Your task to perform on an android device: Go to display settings Image 0: 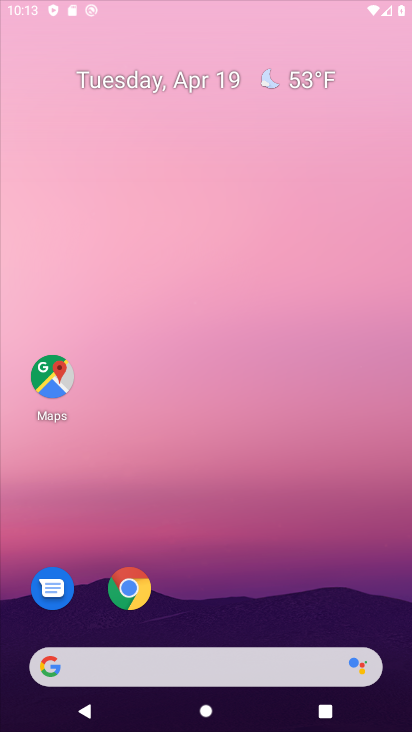
Step 0: click (158, 282)
Your task to perform on an android device: Go to display settings Image 1: 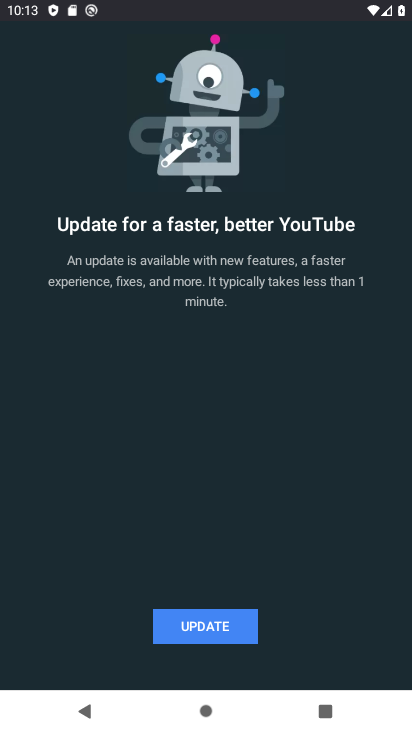
Step 1: press home button
Your task to perform on an android device: Go to display settings Image 2: 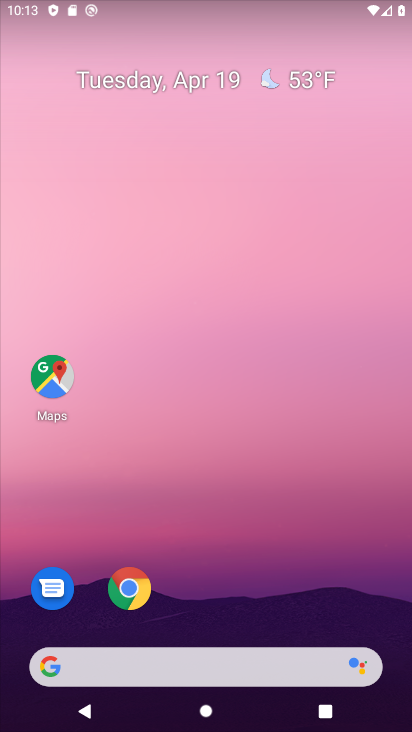
Step 2: drag from (209, 662) to (226, 162)
Your task to perform on an android device: Go to display settings Image 3: 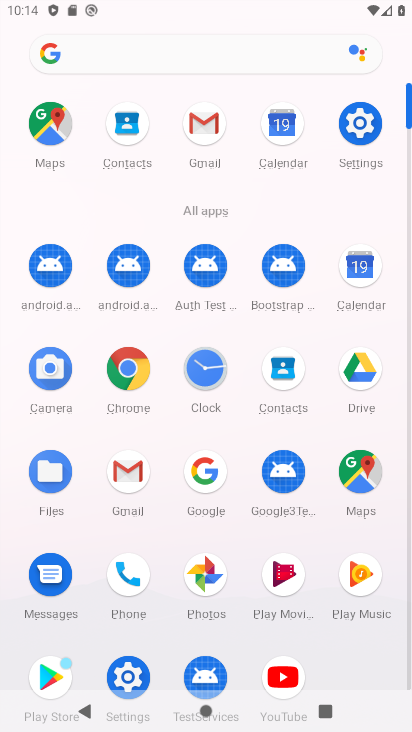
Step 3: click (127, 668)
Your task to perform on an android device: Go to display settings Image 4: 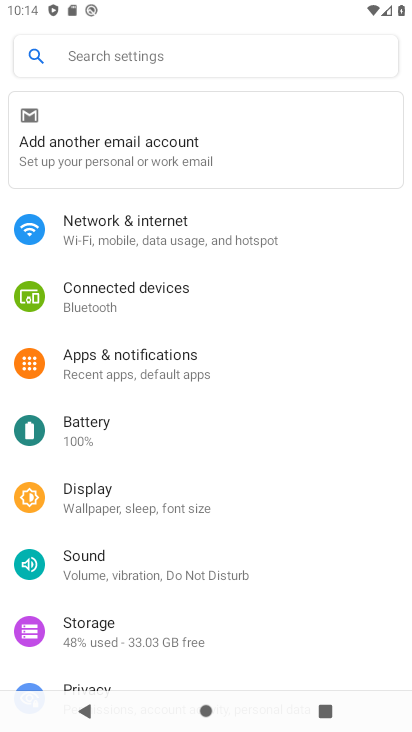
Step 4: click (107, 504)
Your task to perform on an android device: Go to display settings Image 5: 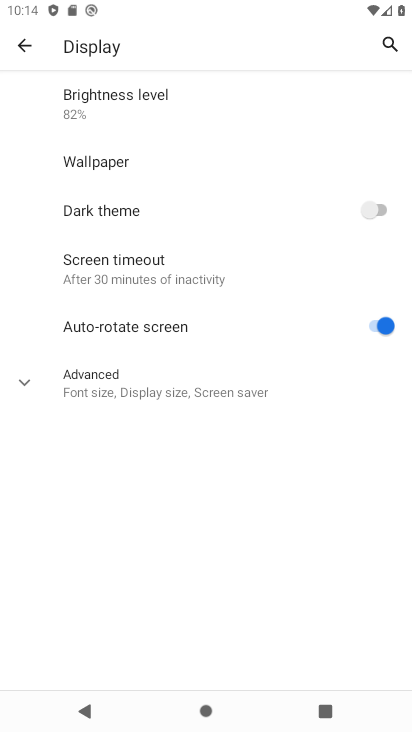
Step 5: task complete